Your task to perform on an android device: turn on translation in the chrome app Image 0: 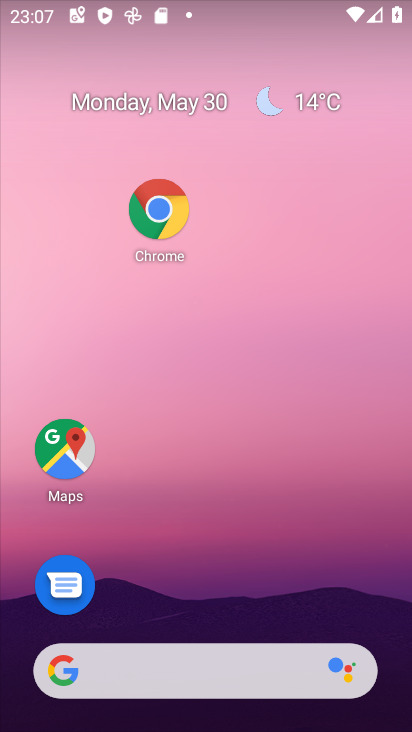
Step 0: drag from (170, 538) to (326, 89)
Your task to perform on an android device: turn on translation in the chrome app Image 1: 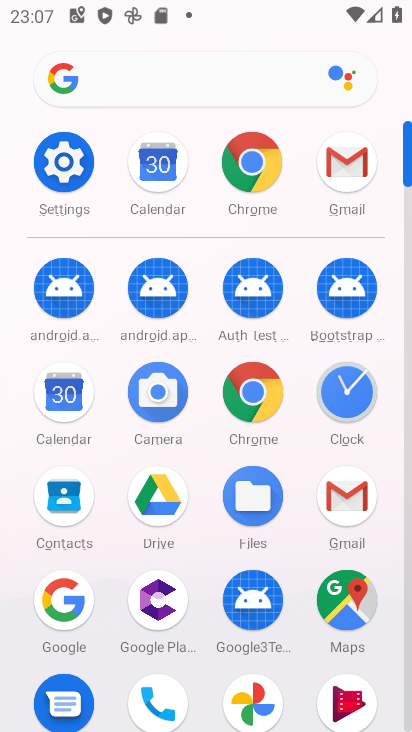
Step 1: click (267, 178)
Your task to perform on an android device: turn on translation in the chrome app Image 2: 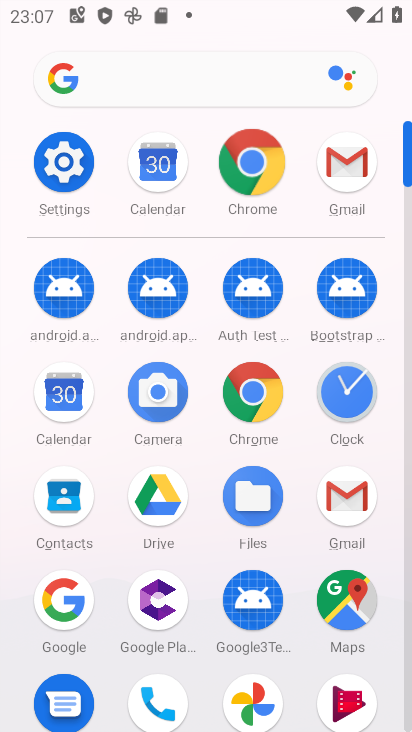
Step 2: click (268, 178)
Your task to perform on an android device: turn on translation in the chrome app Image 3: 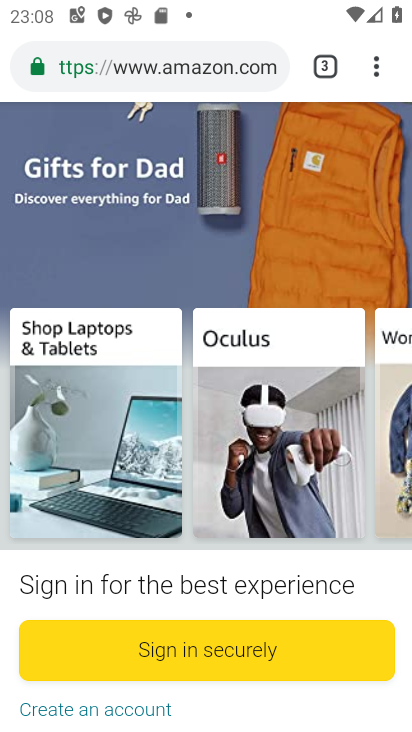
Step 3: drag from (372, 66) to (167, 591)
Your task to perform on an android device: turn on translation in the chrome app Image 4: 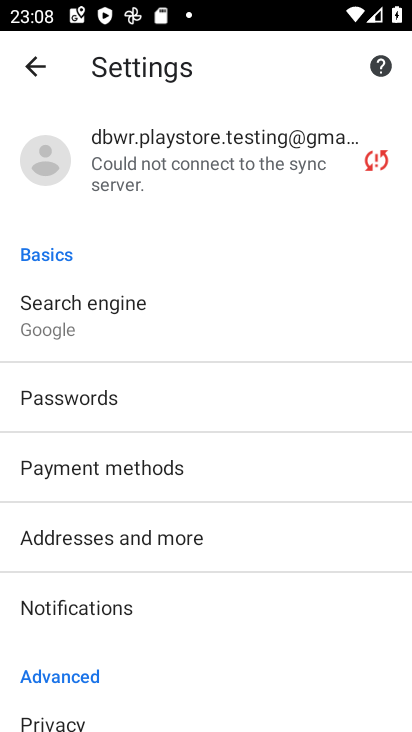
Step 4: drag from (182, 549) to (306, 167)
Your task to perform on an android device: turn on translation in the chrome app Image 5: 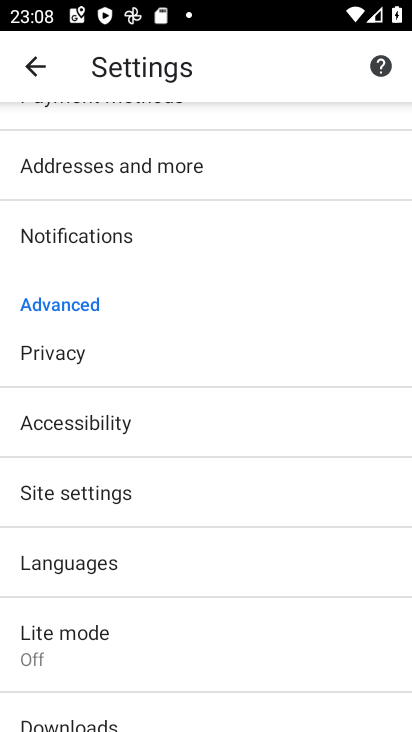
Step 5: click (101, 554)
Your task to perform on an android device: turn on translation in the chrome app Image 6: 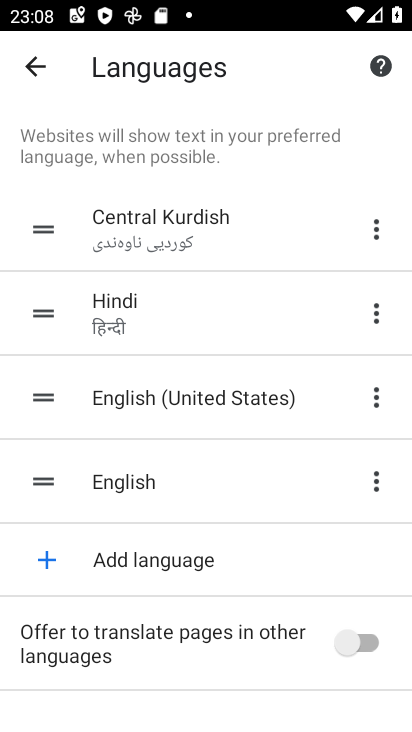
Step 6: click (305, 644)
Your task to perform on an android device: turn on translation in the chrome app Image 7: 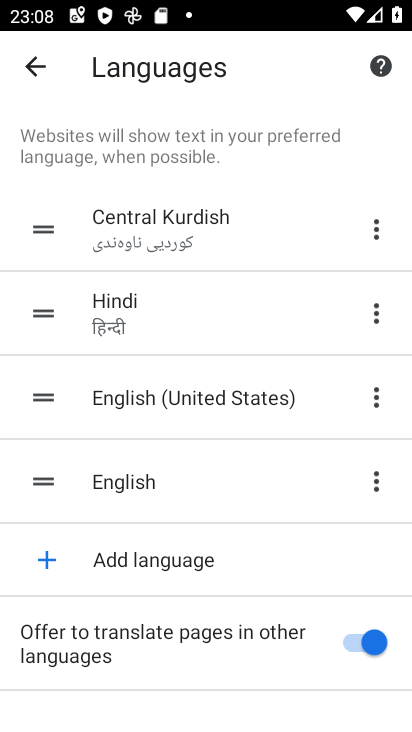
Step 7: task complete